Your task to perform on an android device: Open Google Chrome Image 0: 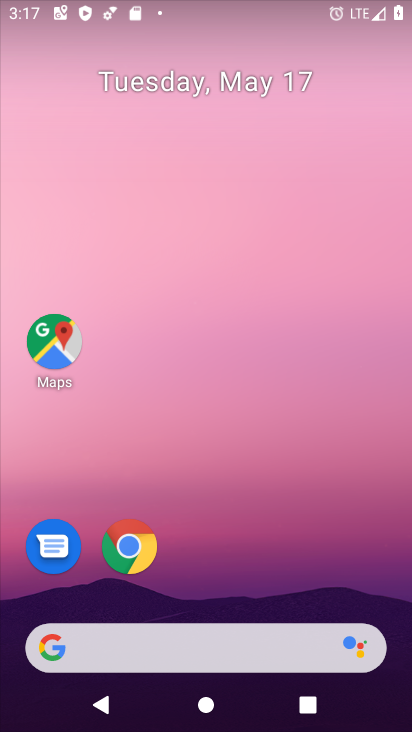
Step 0: click (133, 549)
Your task to perform on an android device: Open Google Chrome Image 1: 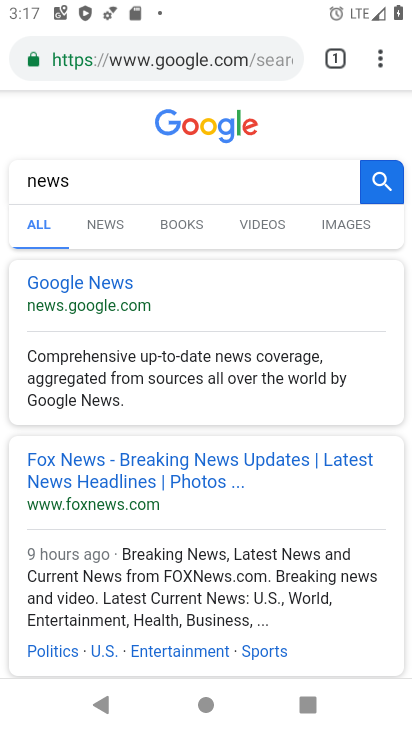
Step 1: task complete